Your task to perform on an android device: Do I have any events today? Image 0: 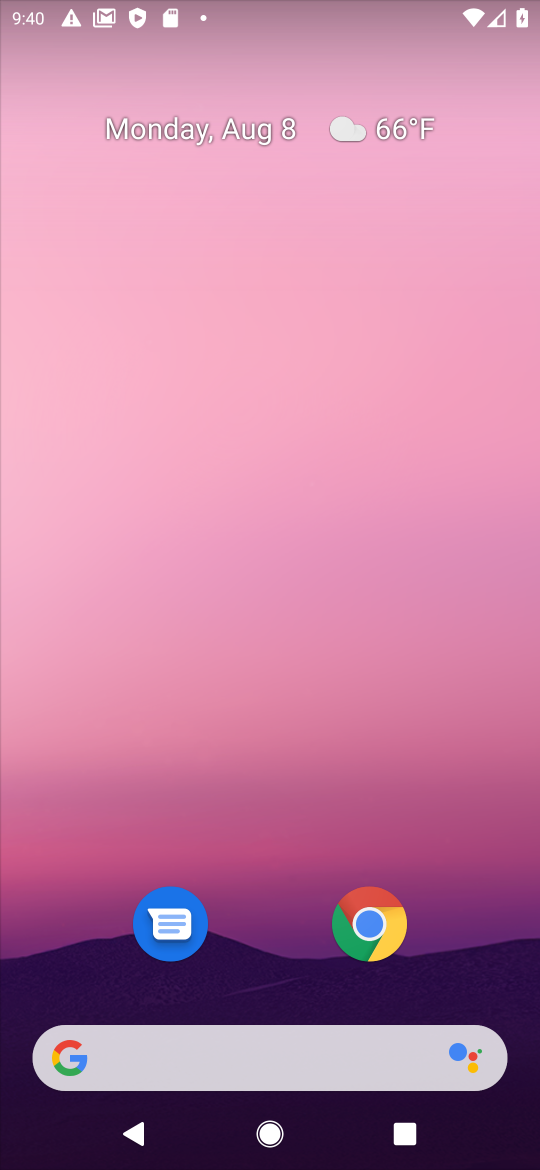
Step 0: drag from (271, 919) to (271, 47)
Your task to perform on an android device: Do I have any events today? Image 1: 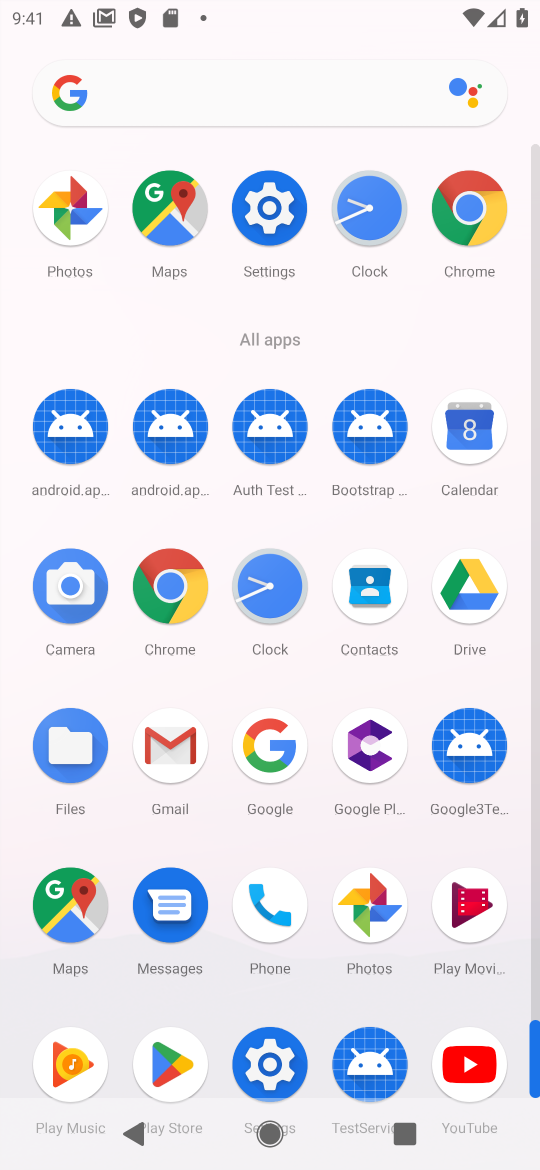
Step 1: click (480, 418)
Your task to perform on an android device: Do I have any events today? Image 2: 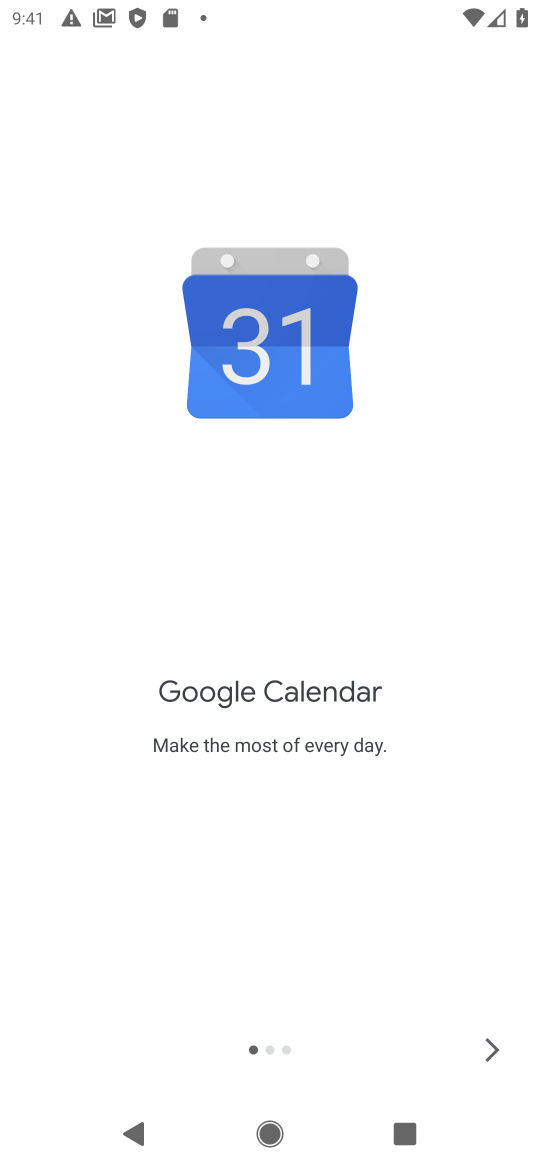
Step 2: click (484, 1052)
Your task to perform on an android device: Do I have any events today? Image 3: 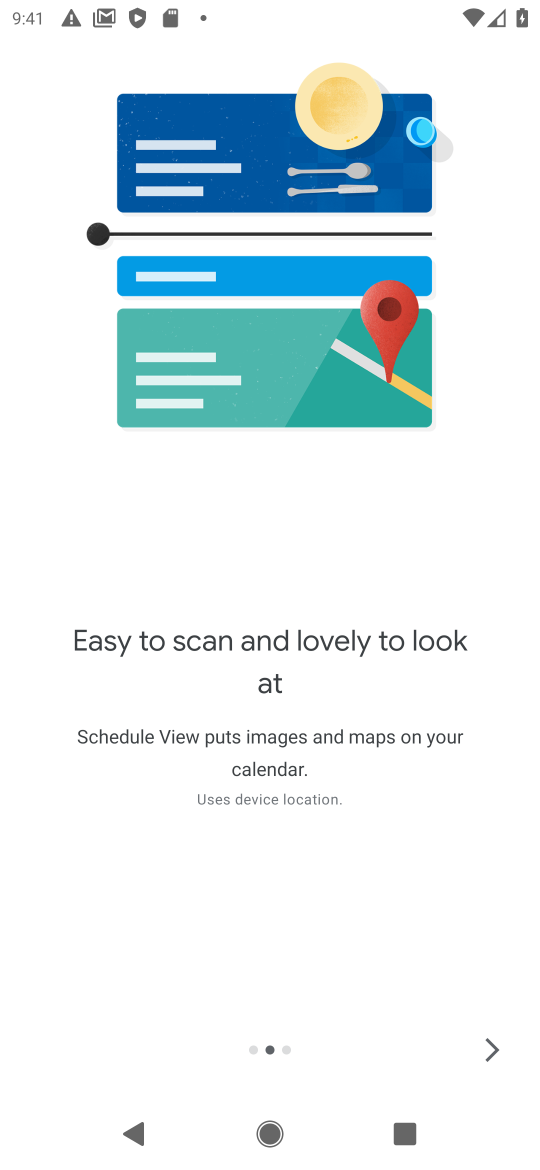
Step 3: click (484, 1052)
Your task to perform on an android device: Do I have any events today? Image 4: 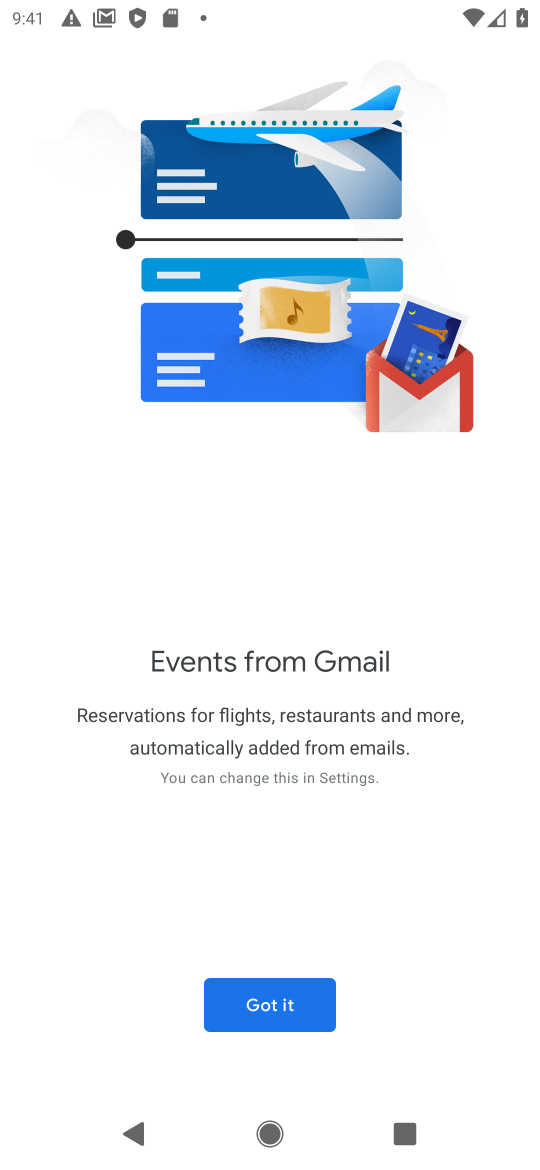
Step 4: click (270, 993)
Your task to perform on an android device: Do I have any events today? Image 5: 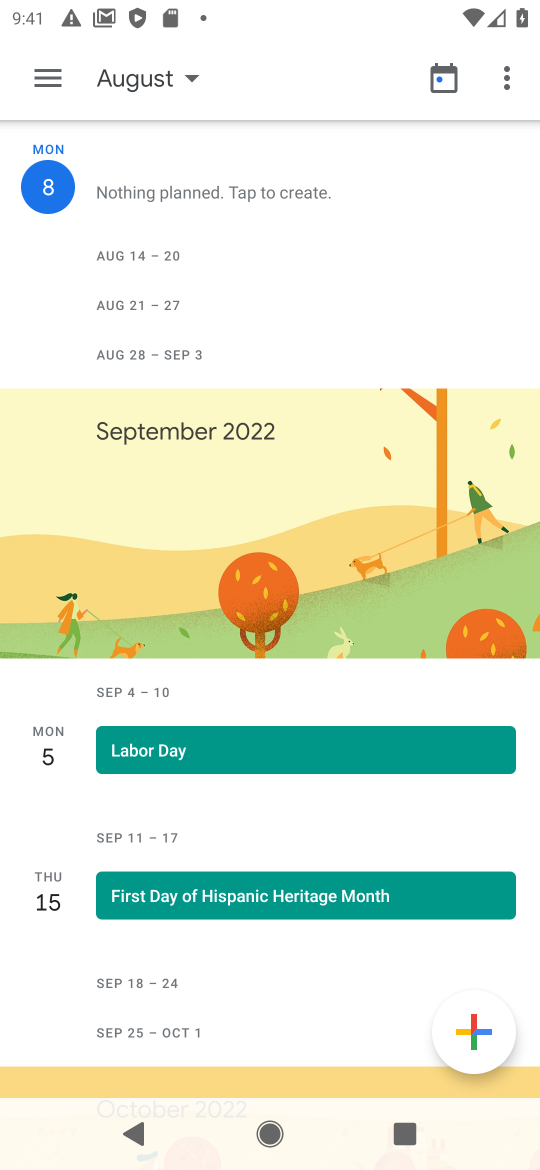
Step 5: click (134, 73)
Your task to perform on an android device: Do I have any events today? Image 6: 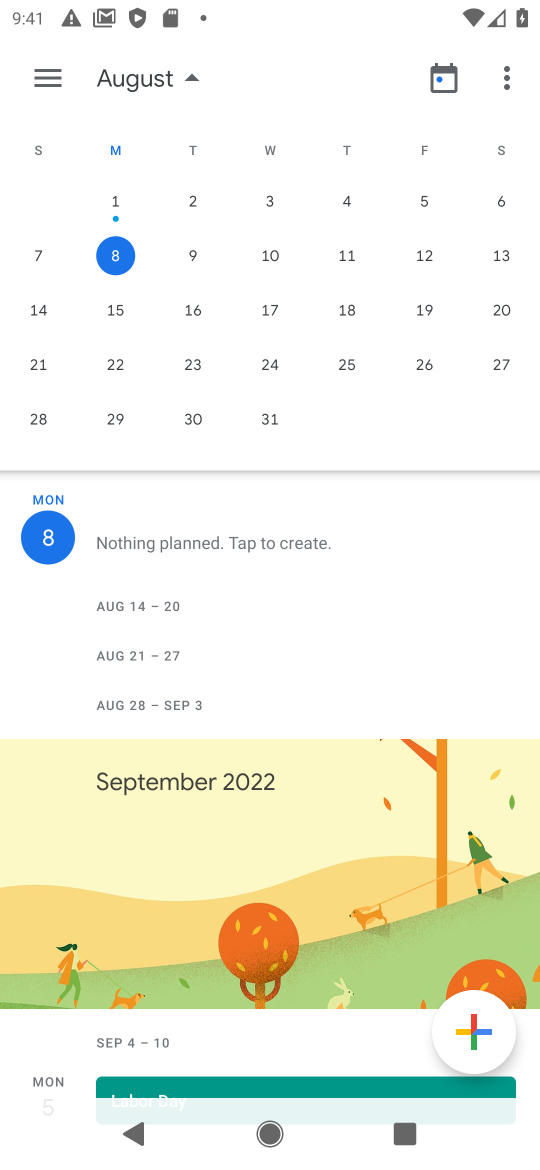
Step 6: click (189, 262)
Your task to perform on an android device: Do I have any events today? Image 7: 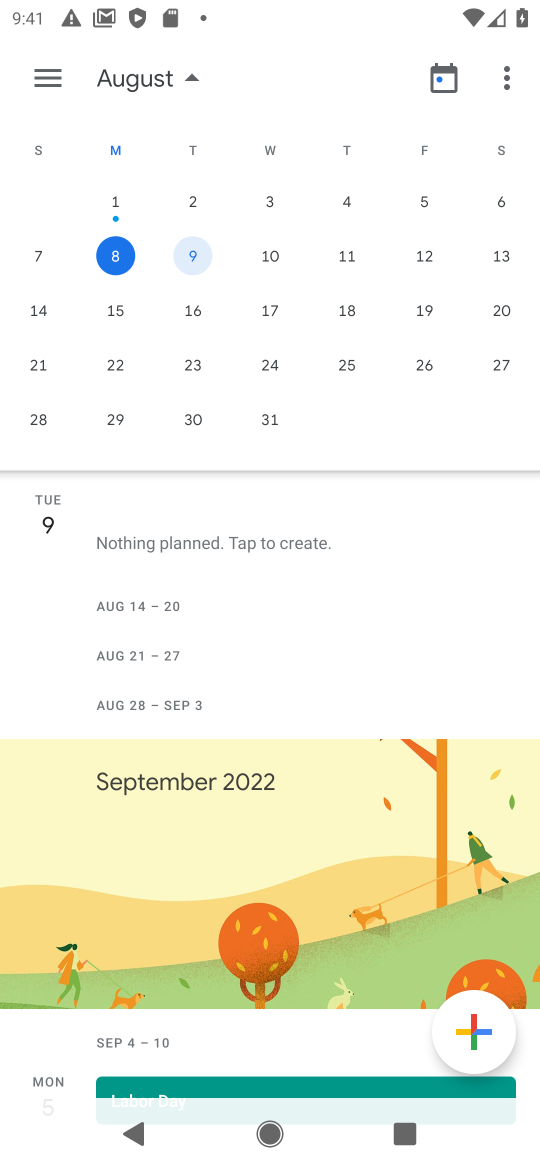
Step 7: task complete